Your task to perform on an android device: turn on wifi Image 0: 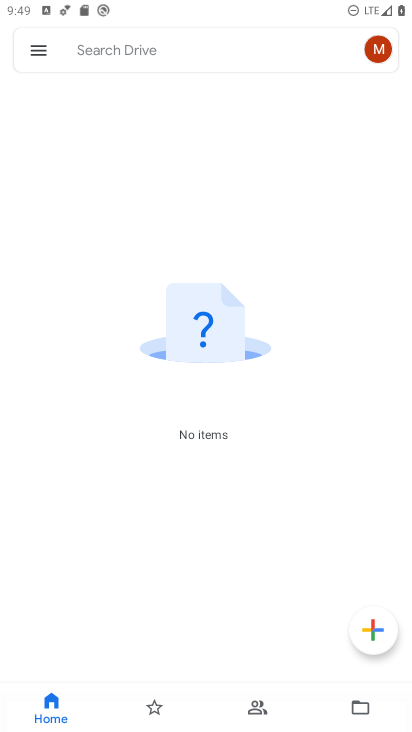
Step 0: press home button
Your task to perform on an android device: turn on wifi Image 1: 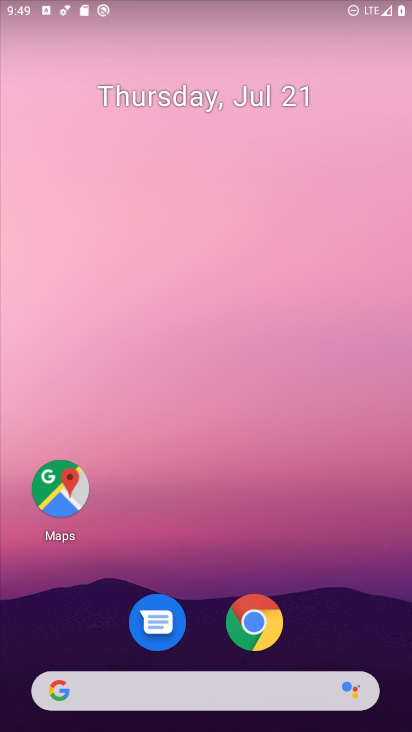
Step 1: drag from (199, 688) to (212, 112)
Your task to perform on an android device: turn on wifi Image 2: 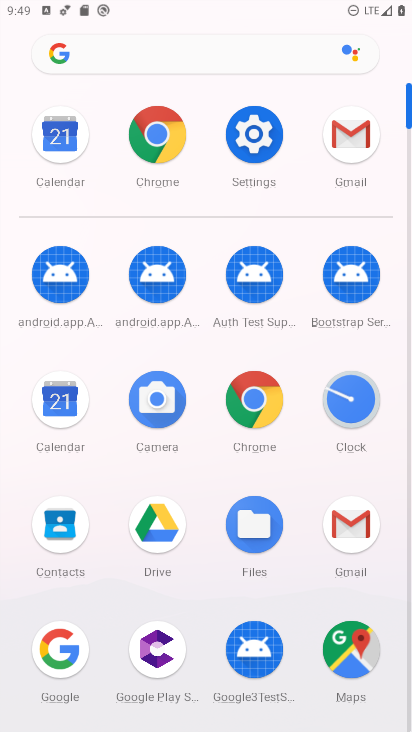
Step 2: click (261, 151)
Your task to perform on an android device: turn on wifi Image 3: 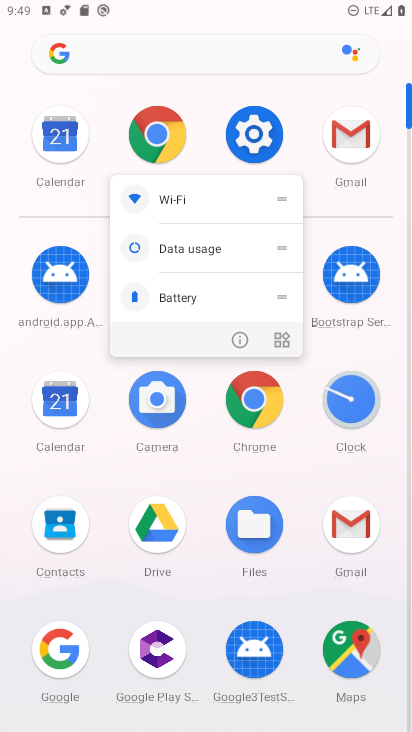
Step 3: click (261, 151)
Your task to perform on an android device: turn on wifi Image 4: 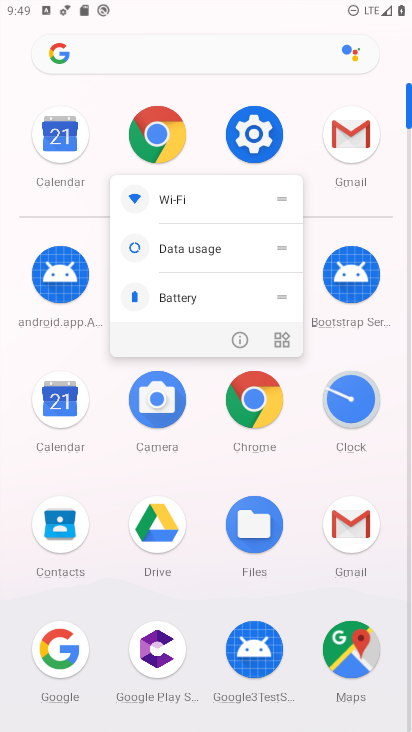
Step 4: click (259, 144)
Your task to perform on an android device: turn on wifi Image 5: 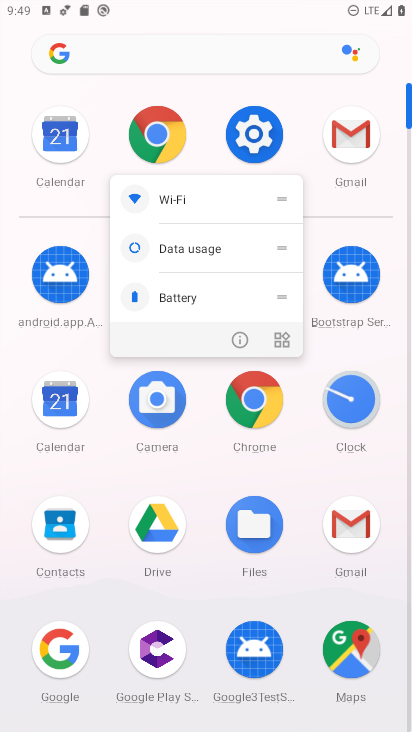
Step 5: click (259, 144)
Your task to perform on an android device: turn on wifi Image 6: 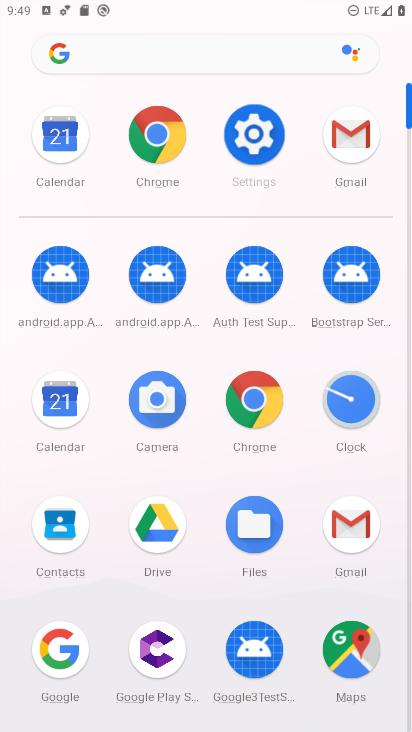
Step 6: click (259, 144)
Your task to perform on an android device: turn on wifi Image 7: 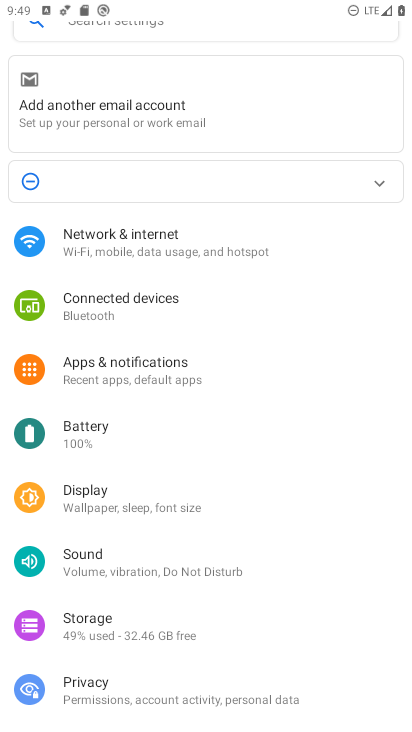
Step 7: click (142, 246)
Your task to perform on an android device: turn on wifi Image 8: 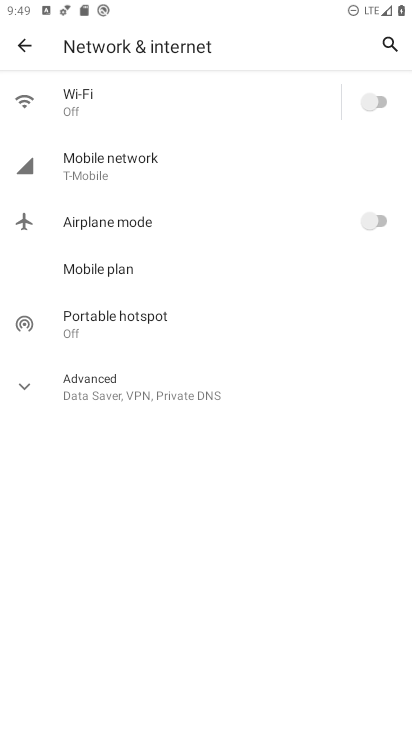
Step 8: click (373, 110)
Your task to perform on an android device: turn on wifi Image 9: 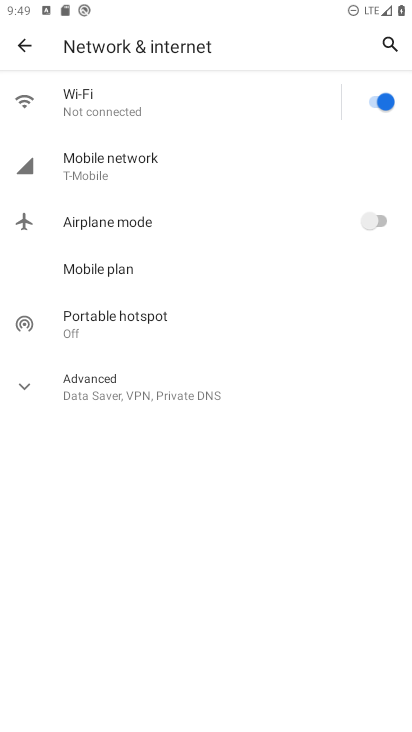
Step 9: task complete